Your task to perform on an android device: Is it going to rain tomorrow? Image 0: 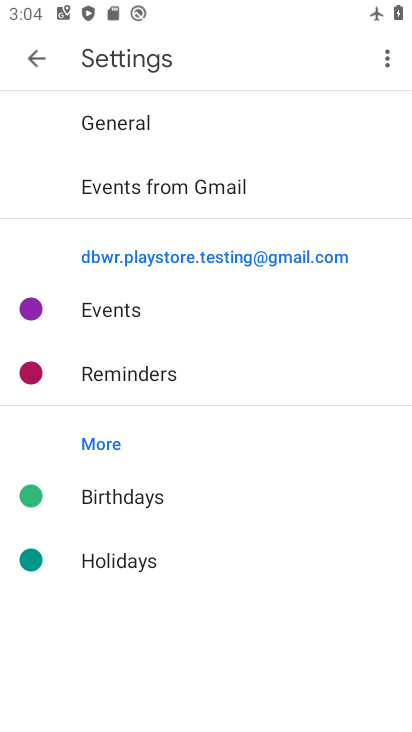
Step 0: press back button
Your task to perform on an android device: Is it going to rain tomorrow? Image 1: 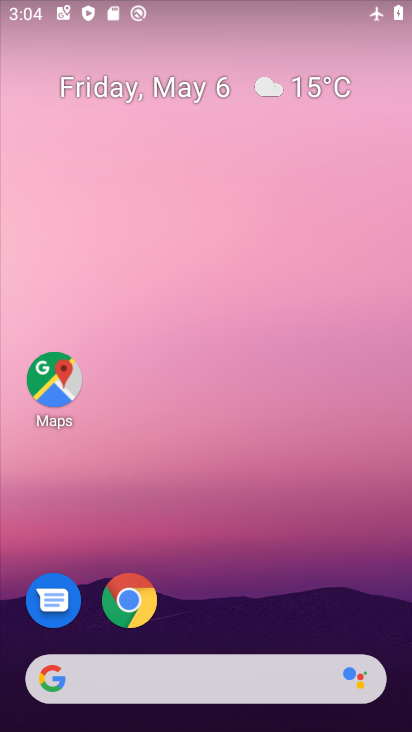
Step 1: drag from (266, 576) to (242, 5)
Your task to perform on an android device: Is it going to rain tomorrow? Image 2: 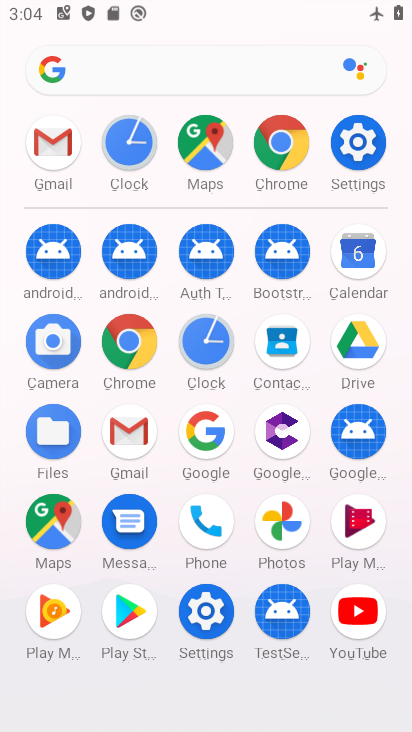
Step 2: click (129, 339)
Your task to perform on an android device: Is it going to rain tomorrow? Image 3: 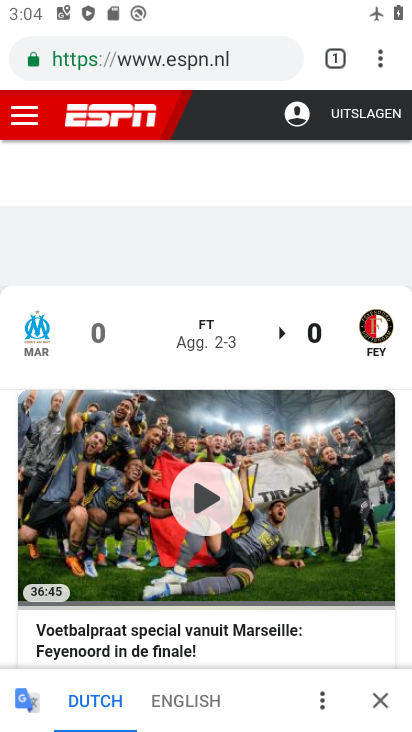
Step 3: click (177, 60)
Your task to perform on an android device: Is it going to rain tomorrow? Image 4: 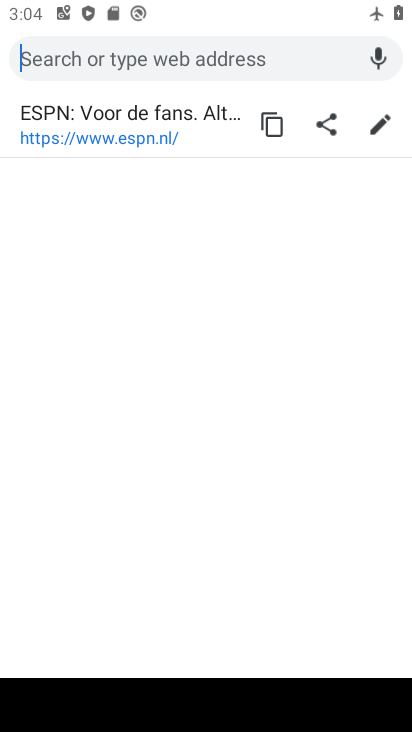
Step 4: type "Is it going to rain tomorrow?"
Your task to perform on an android device: Is it going to rain tomorrow? Image 5: 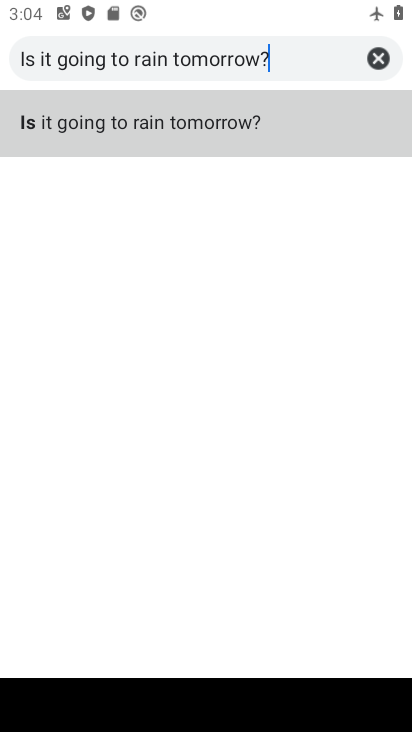
Step 5: type ""
Your task to perform on an android device: Is it going to rain tomorrow? Image 6: 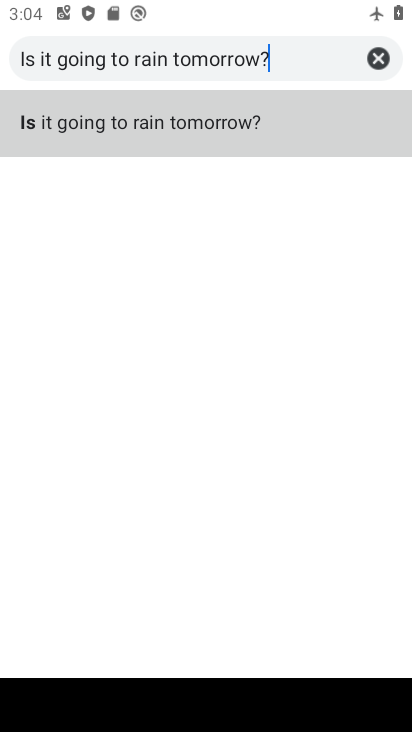
Step 6: click (166, 127)
Your task to perform on an android device: Is it going to rain tomorrow? Image 7: 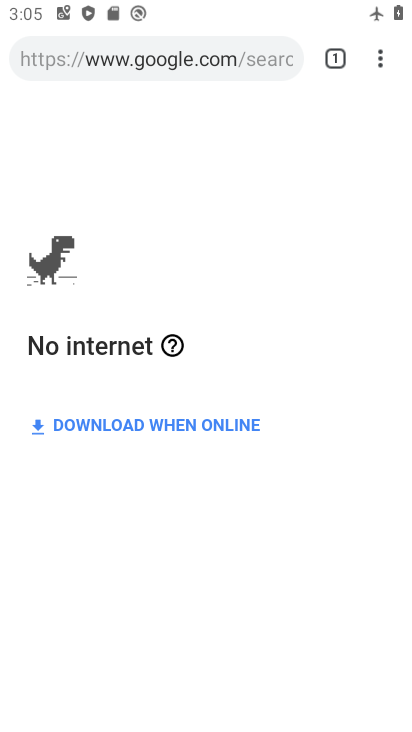
Step 7: task complete